Your task to perform on an android device: change the clock display to show seconds Image 0: 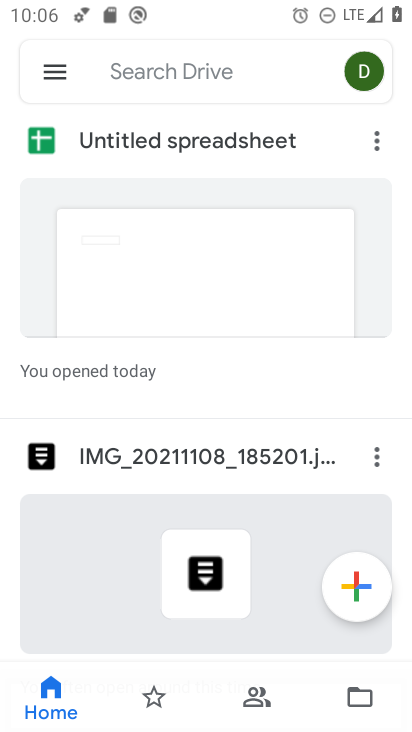
Step 0: press home button
Your task to perform on an android device: change the clock display to show seconds Image 1: 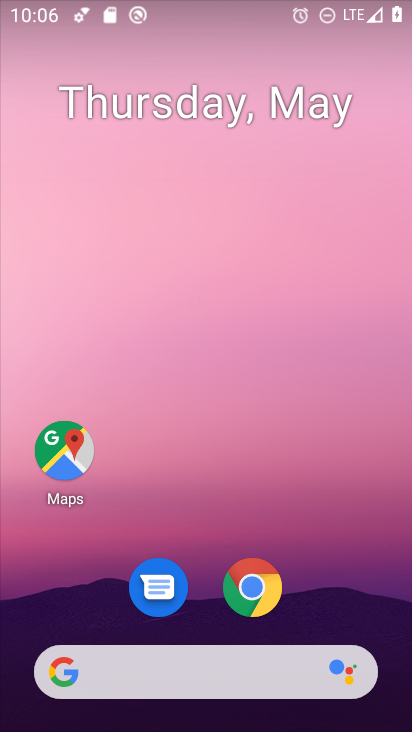
Step 1: drag from (362, 633) to (369, 7)
Your task to perform on an android device: change the clock display to show seconds Image 2: 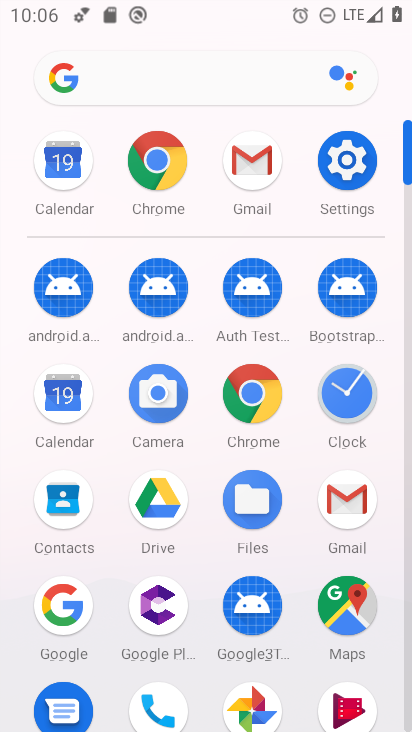
Step 2: click (354, 399)
Your task to perform on an android device: change the clock display to show seconds Image 3: 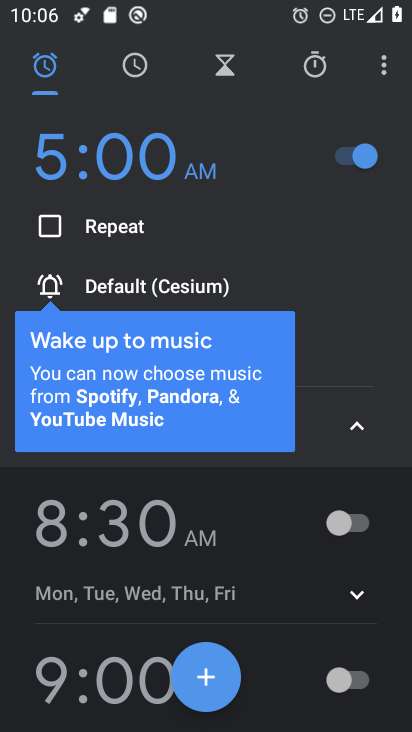
Step 3: click (387, 71)
Your task to perform on an android device: change the clock display to show seconds Image 4: 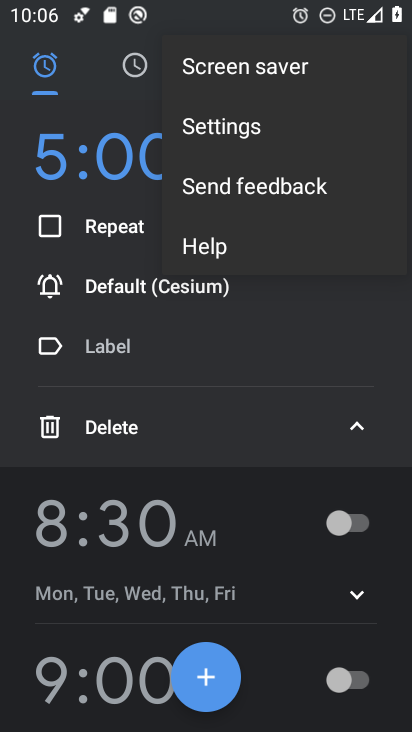
Step 4: click (208, 133)
Your task to perform on an android device: change the clock display to show seconds Image 5: 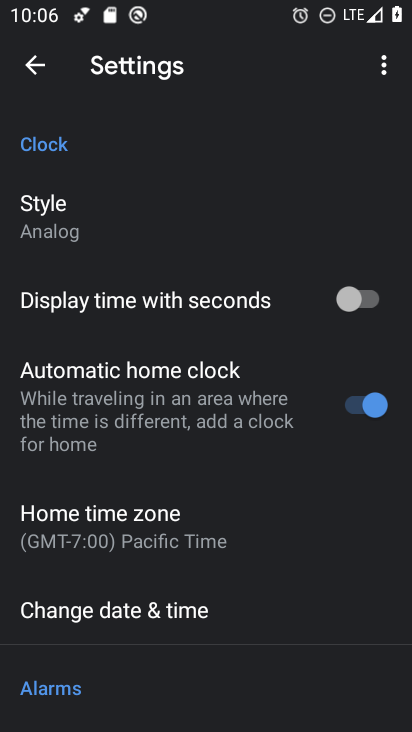
Step 5: click (342, 307)
Your task to perform on an android device: change the clock display to show seconds Image 6: 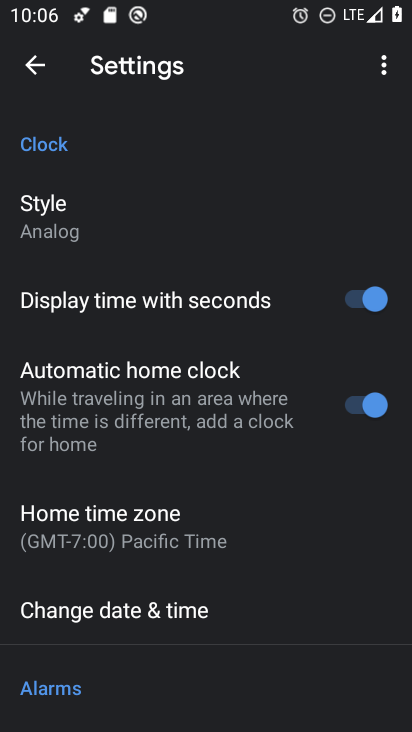
Step 6: task complete